Your task to perform on an android device: Go to settings Image 0: 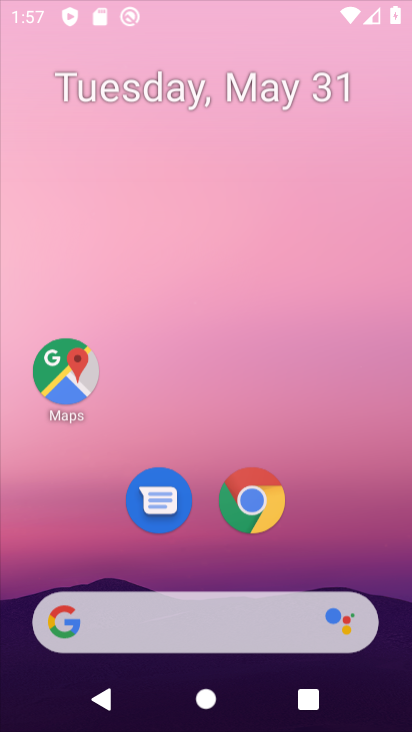
Step 0: click (170, 84)
Your task to perform on an android device: Go to settings Image 1: 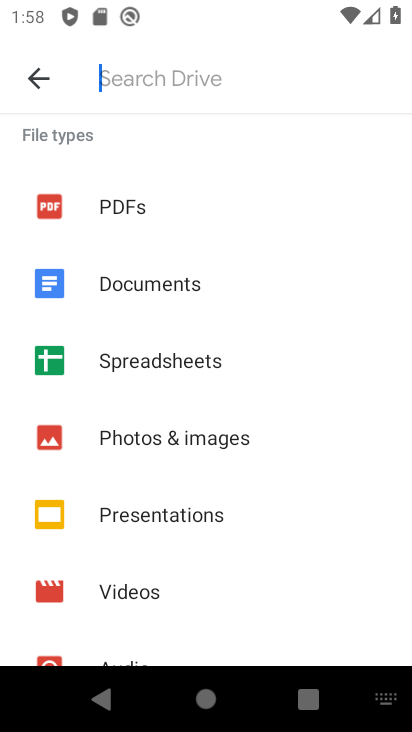
Step 1: press home button
Your task to perform on an android device: Go to settings Image 2: 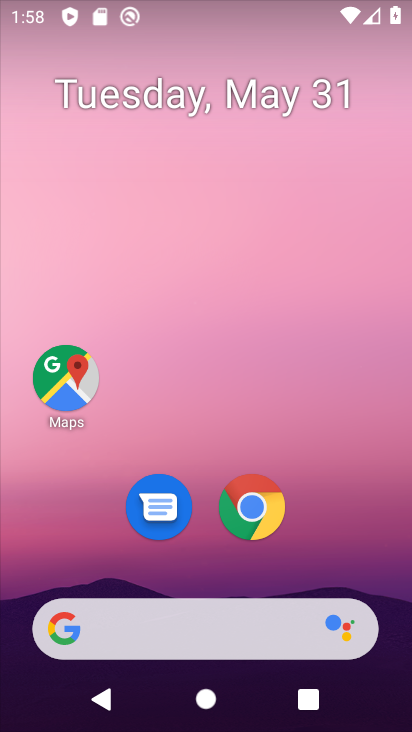
Step 2: drag from (213, 580) to (219, 99)
Your task to perform on an android device: Go to settings Image 3: 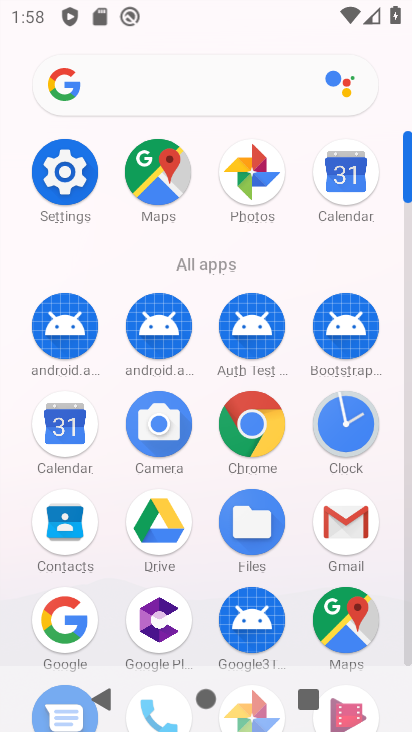
Step 3: click (46, 208)
Your task to perform on an android device: Go to settings Image 4: 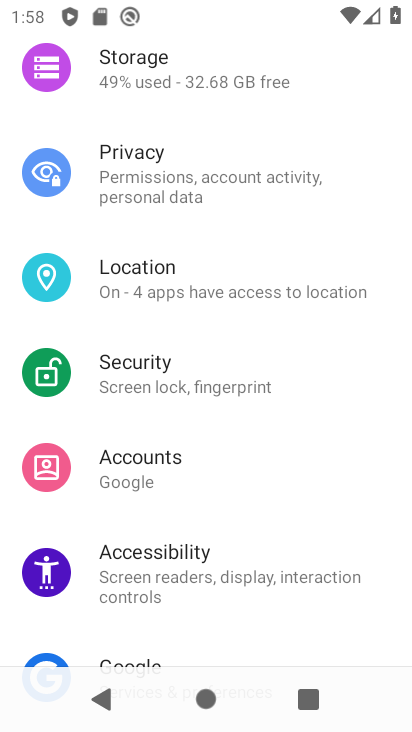
Step 4: task complete